Your task to perform on an android device: turn notification dots off Image 0: 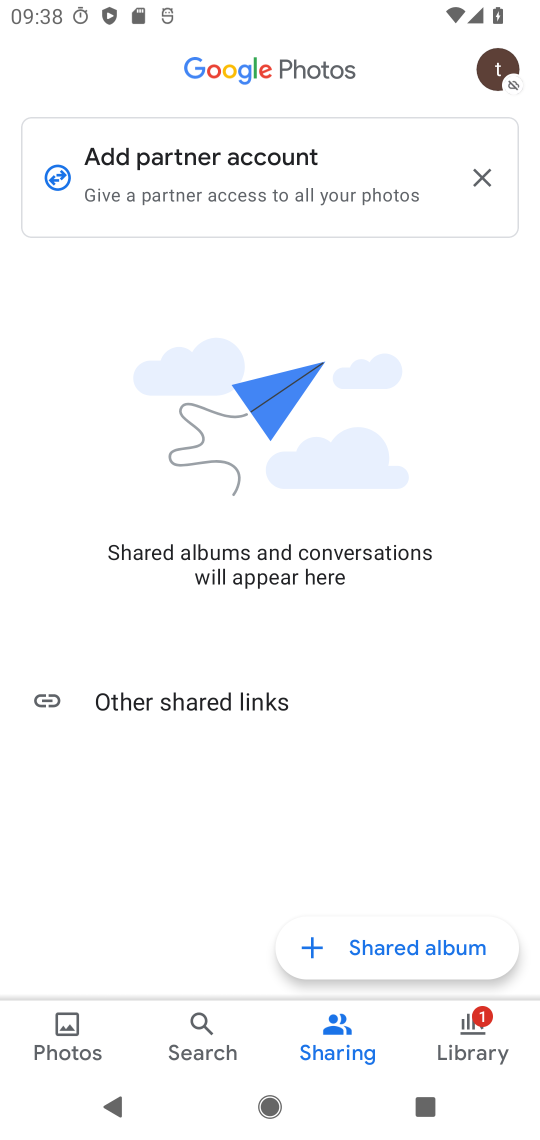
Step 0: press home button
Your task to perform on an android device: turn notification dots off Image 1: 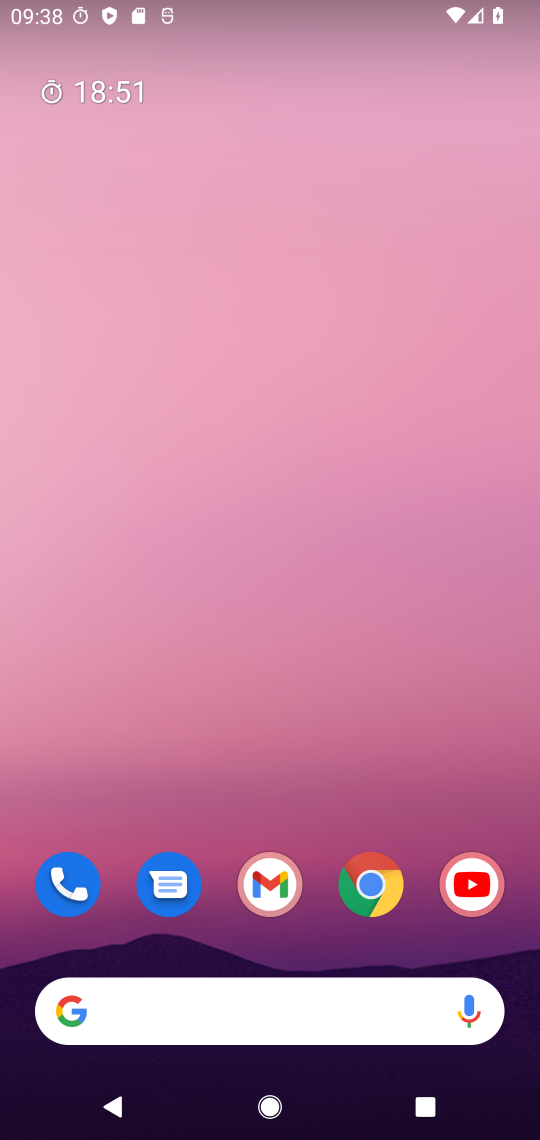
Step 1: drag from (283, 777) to (251, 310)
Your task to perform on an android device: turn notification dots off Image 2: 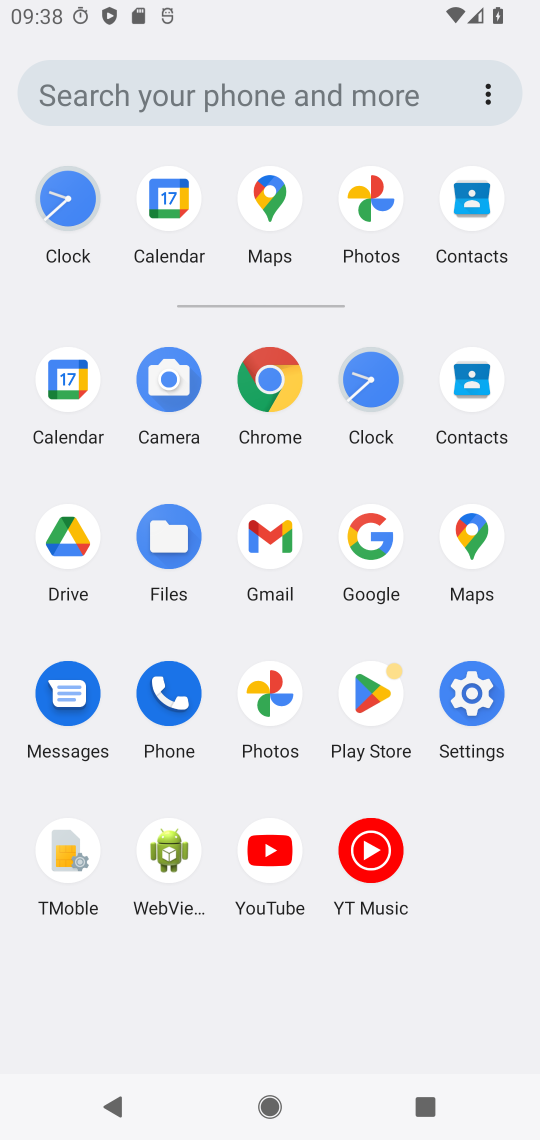
Step 2: click (458, 708)
Your task to perform on an android device: turn notification dots off Image 3: 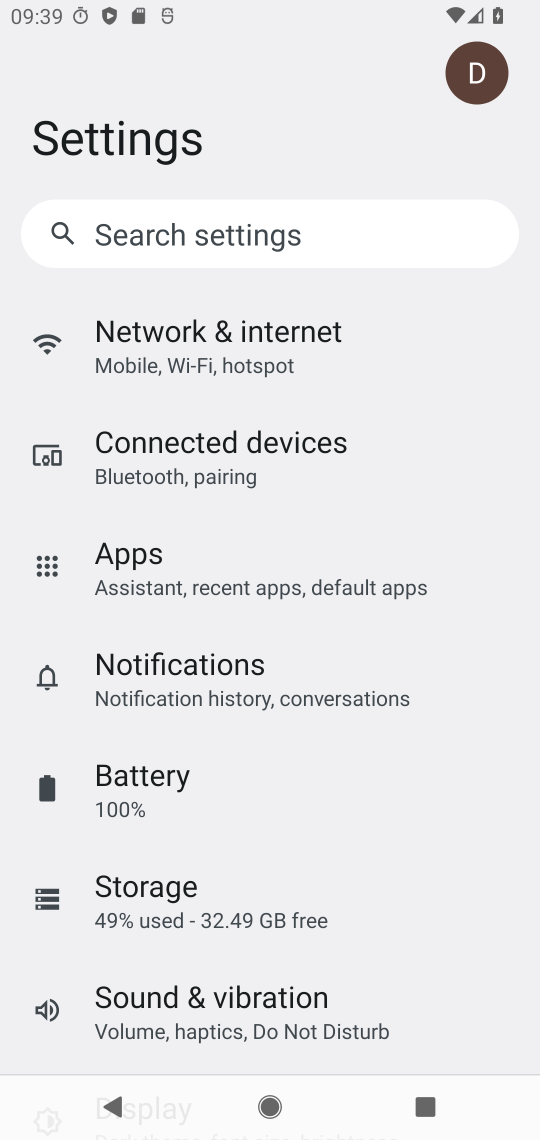
Step 3: click (317, 657)
Your task to perform on an android device: turn notification dots off Image 4: 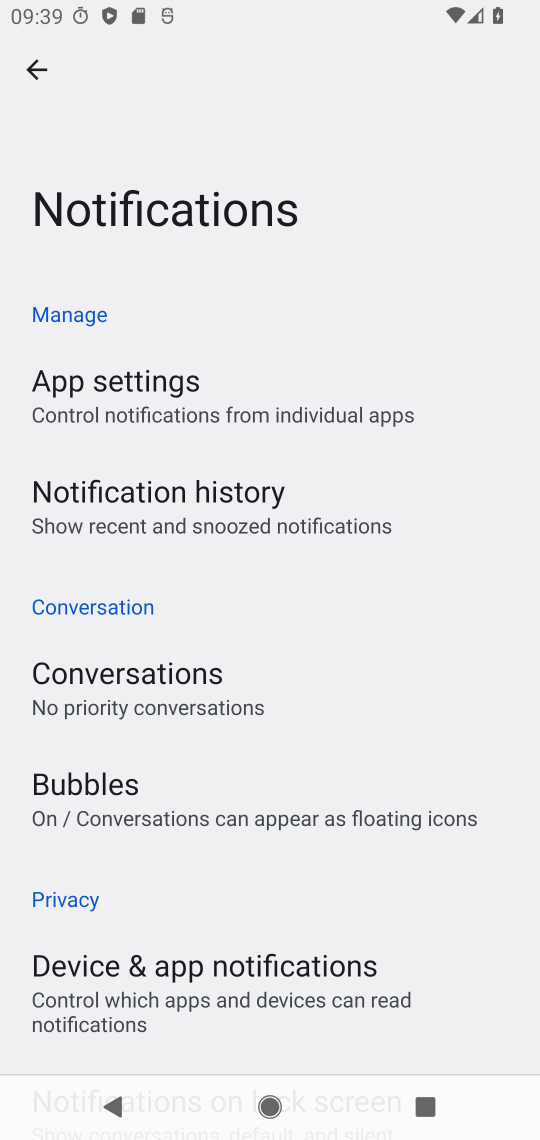
Step 4: drag from (275, 890) to (255, 419)
Your task to perform on an android device: turn notification dots off Image 5: 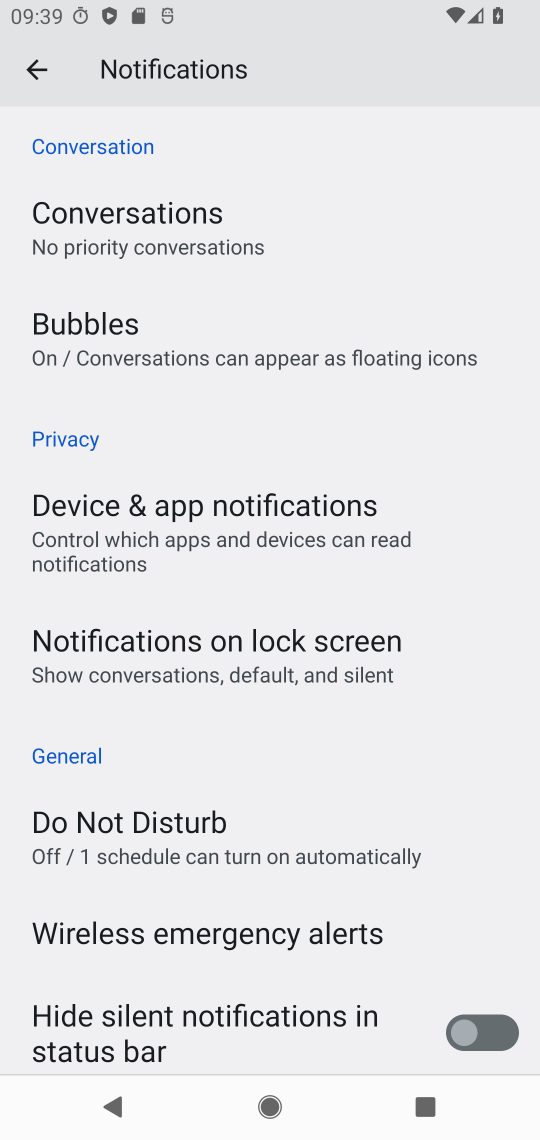
Step 5: drag from (346, 881) to (346, 388)
Your task to perform on an android device: turn notification dots off Image 6: 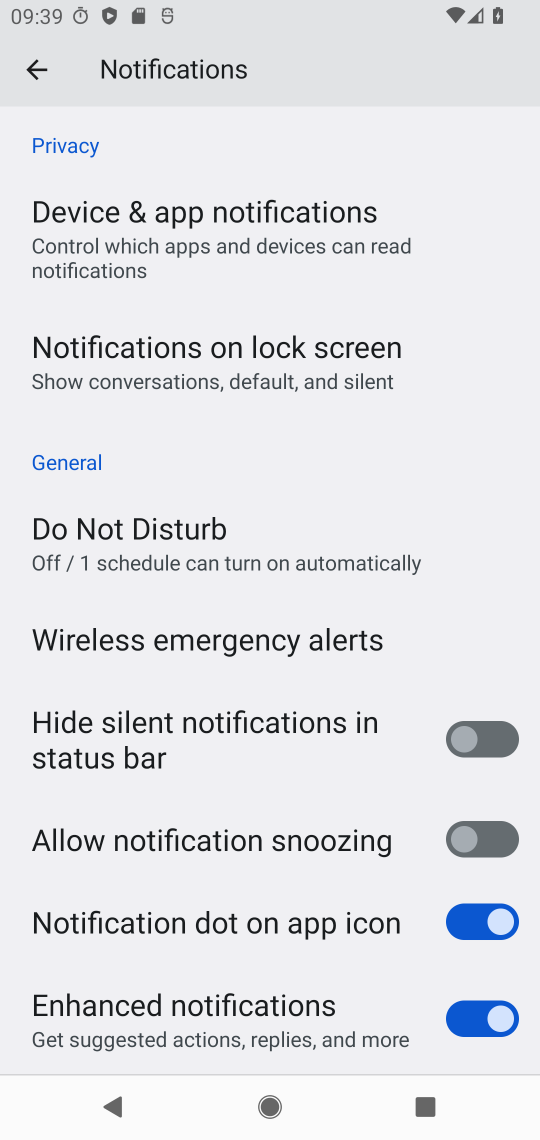
Step 6: click (473, 920)
Your task to perform on an android device: turn notification dots off Image 7: 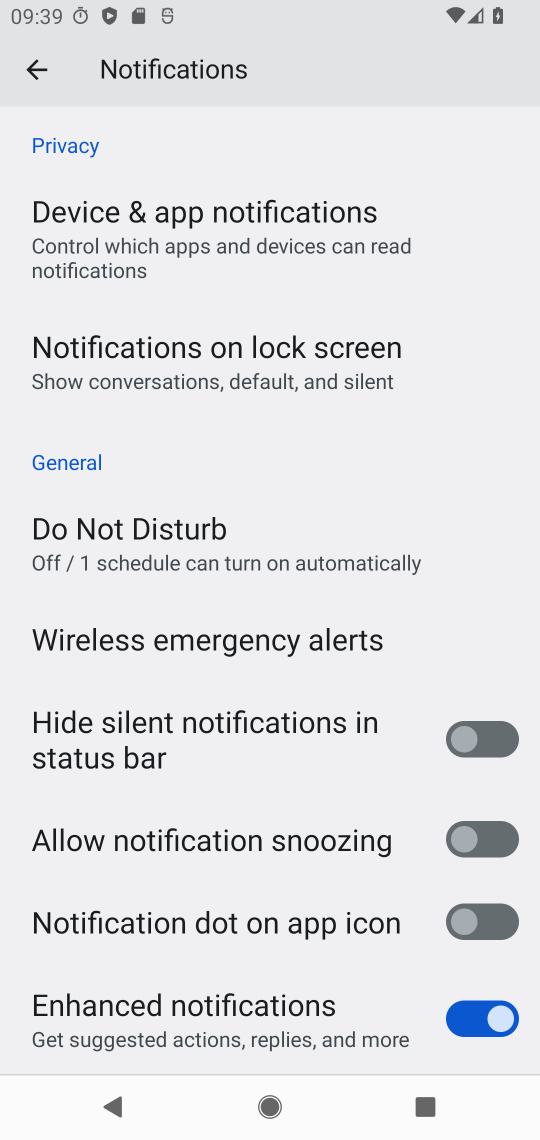
Step 7: task complete